Your task to perform on an android device: see tabs open on other devices in the chrome app Image 0: 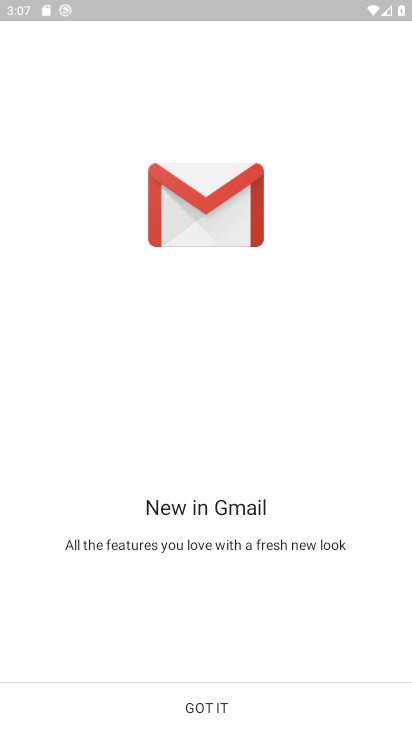
Step 0: press home button
Your task to perform on an android device: see tabs open on other devices in the chrome app Image 1: 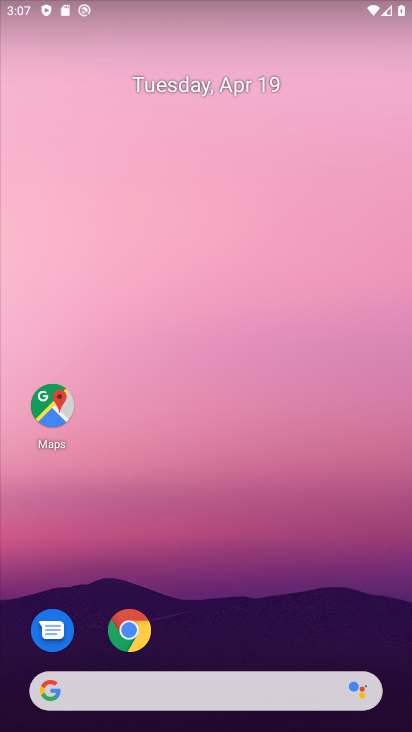
Step 1: drag from (274, 657) to (261, 156)
Your task to perform on an android device: see tabs open on other devices in the chrome app Image 2: 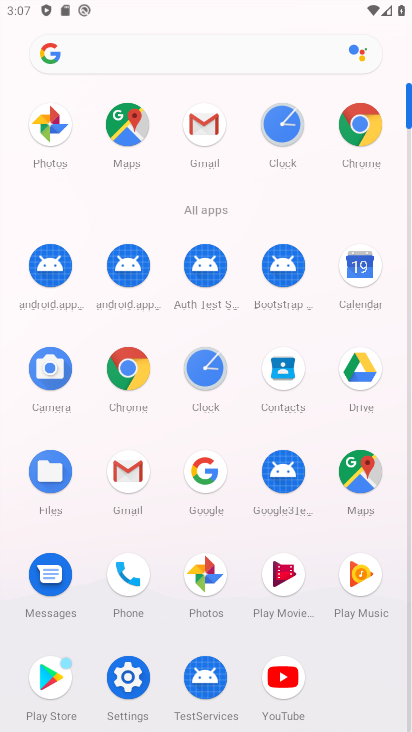
Step 2: click (366, 134)
Your task to perform on an android device: see tabs open on other devices in the chrome app Image 3: 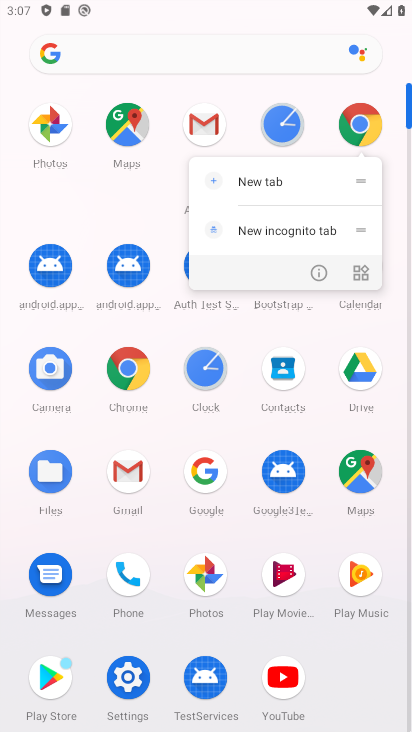
Step 3: click (366, 134)
Your task to perform on an android device: see tabs open on other devices in the chrome app Image 4: 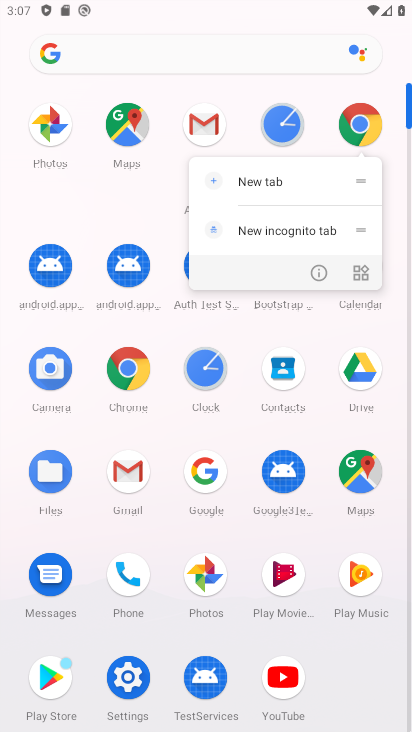
Step 4: click (367, 134)
Your task to perform on an android device: see tabs open on other devices in the chrome app Image 5: 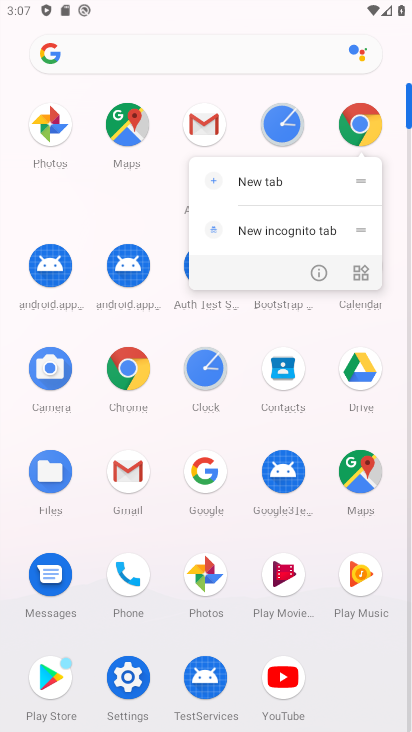
Step 5: click (367, 134)
Your task to perform on an android device: see tabs open on other devices in the chrome app Image 6: 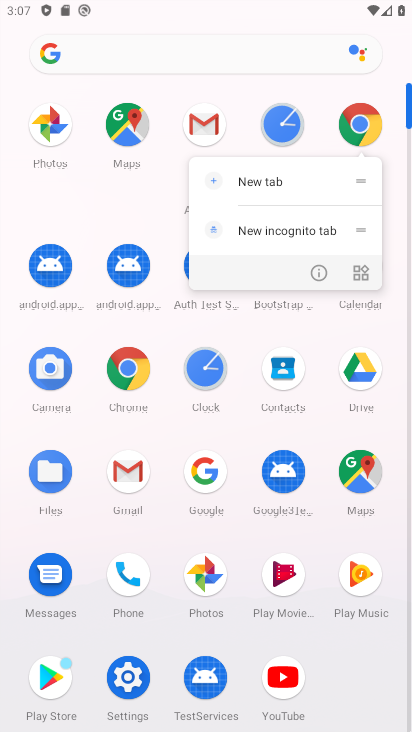
Step 6: click (367, 134)
Your task to perform on an android device: see tabs open on other devices in the chrome app Image 7: 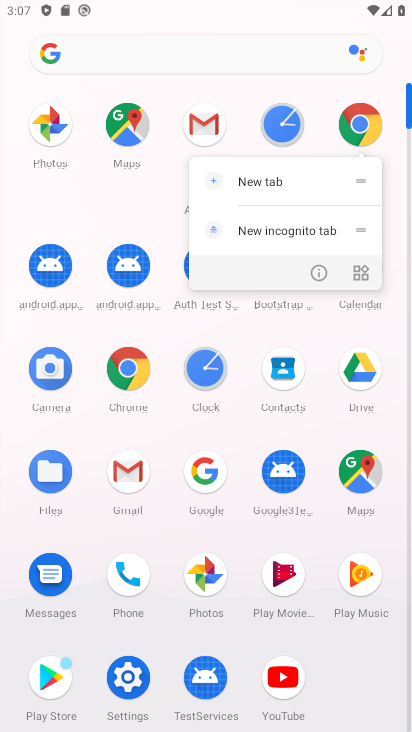
Step 7: click (367, 134)
Your task to perform on an android device: see tabs open on other devices in the chrome app Image 8: 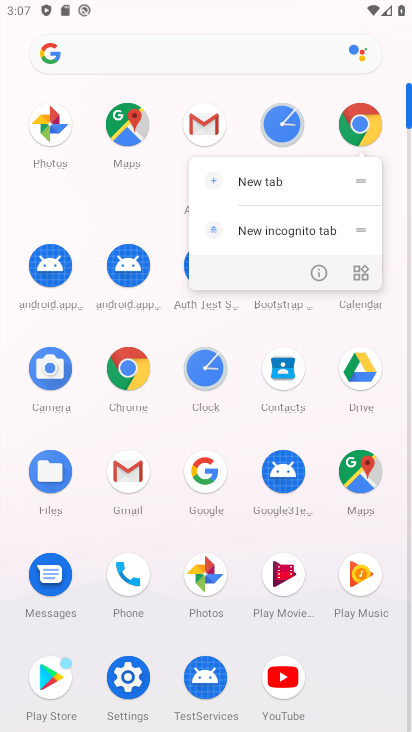
Step 8: click (367, 134)
Your task to perform on an android device: see tabs open on other devices in the chrome app Image 9: 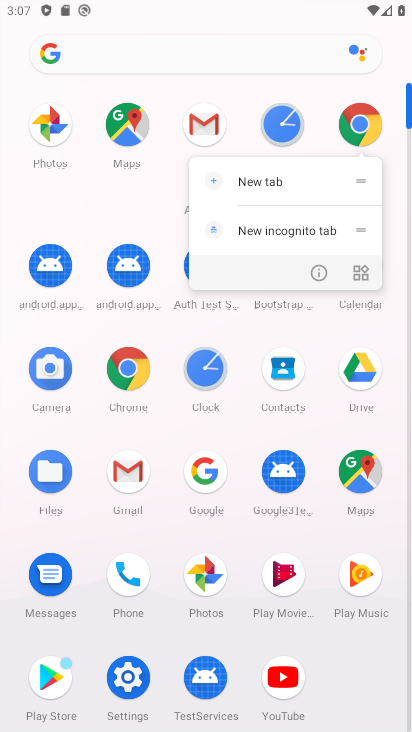
Step 9: click (367, 134)
Your task to perform on an android device: see tabs open on other devices in the chrome app Image 10: 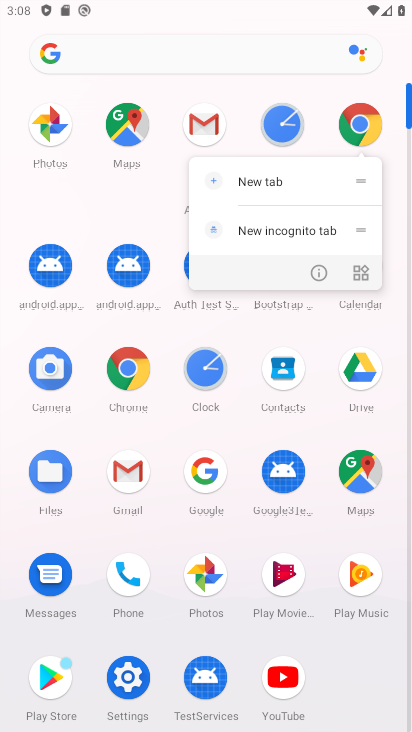
Step 10: click (366, 128)
Your task to perform on an android device: see tabs open on other devices in the chrome app Image 11: 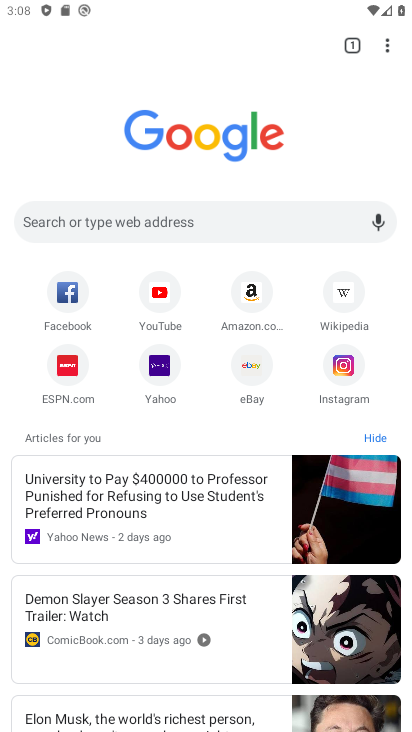
Step 11: drag from (394, 38) to (235, 223)
Your task to perform on an android device: see tabs open on other devices in the chrome app Image 12: 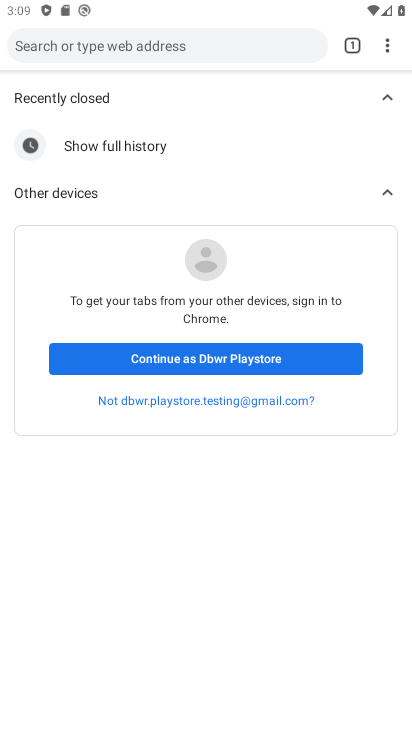
Step 12: click (161, 362)
Your task to perform on an android device: see tabs open on other devices in the chrome app Image 13: 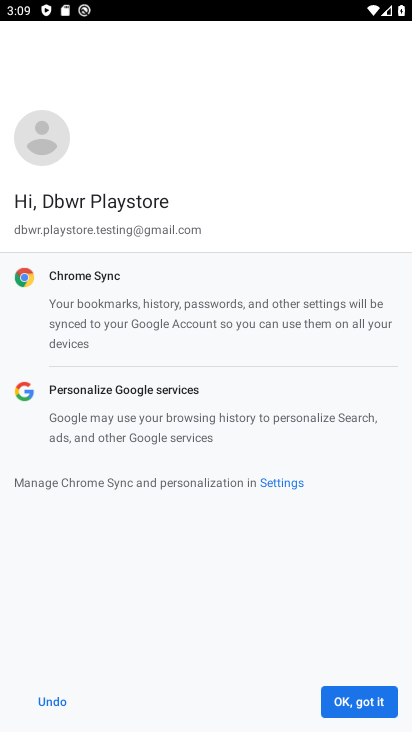
Step 13: click (364, 702)
Your task to perform on an android device: see tabs open on other devices in the chrome app Image 14: 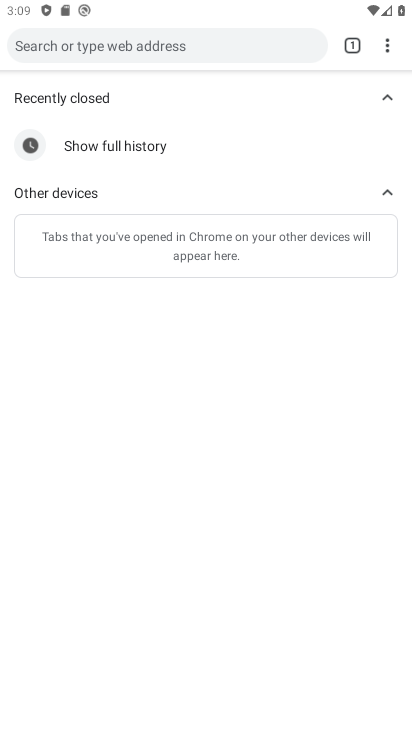
Step 14: task complete